Your task to perform on an android device: move an email to a new category in the gmail app Image 0: 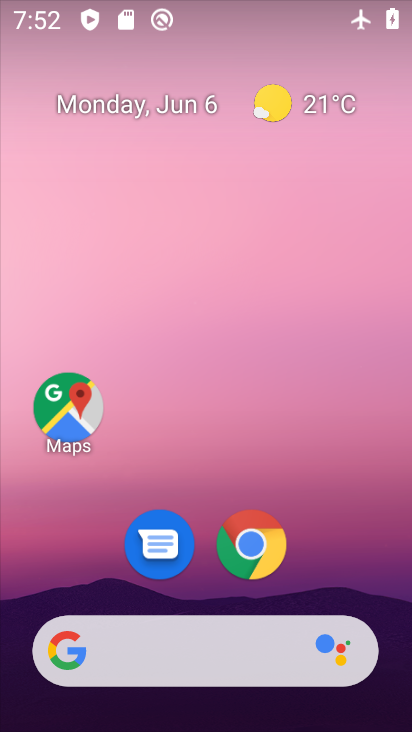
Step 0: drag from (378, 637) to (293, 318)
Your task to perform on an android device: move an email to a new category in the gmail app Image 1: 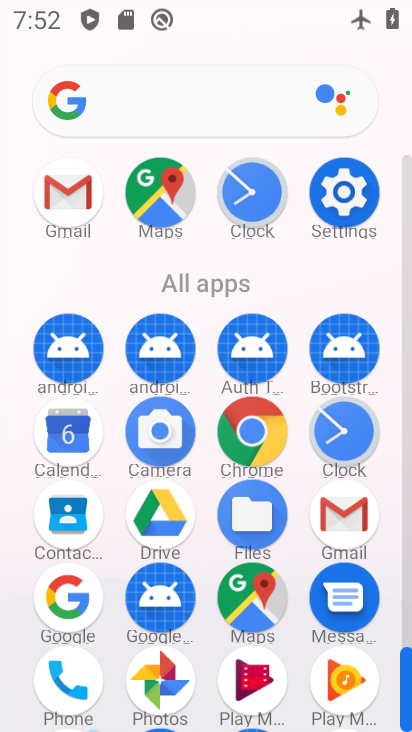
Step 1: click (56, 196)
Your task to perform on an android device: move an email to a new category in the gmail app Image 2: 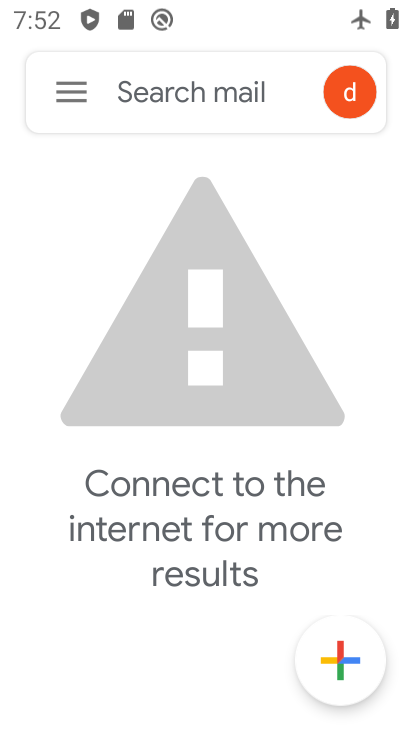
Step 2: click (70, 93)
Your task to perform on an android device: move an email to a new category in the gmail app Image 3: 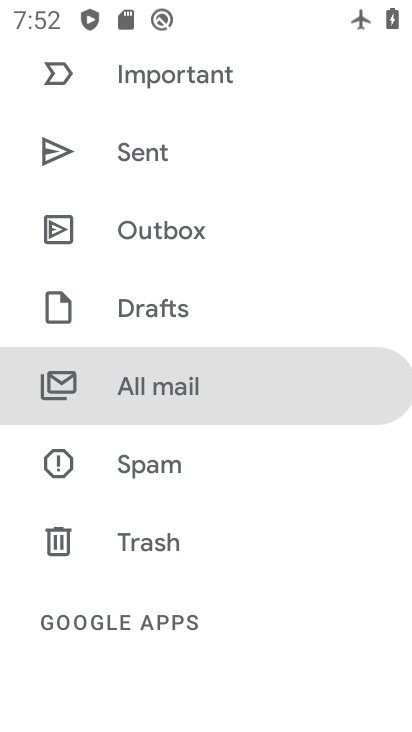
Step 3: click (154, 370)
Your task to perform on an android device: move an email to a new category in the gmail app Image 4: 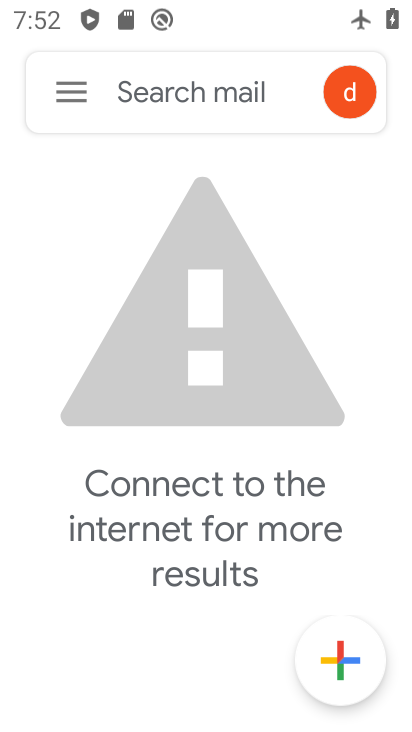
Step 4: task complete